Your task to perform on an android device: visit the assistant section in the google photos Image 0: 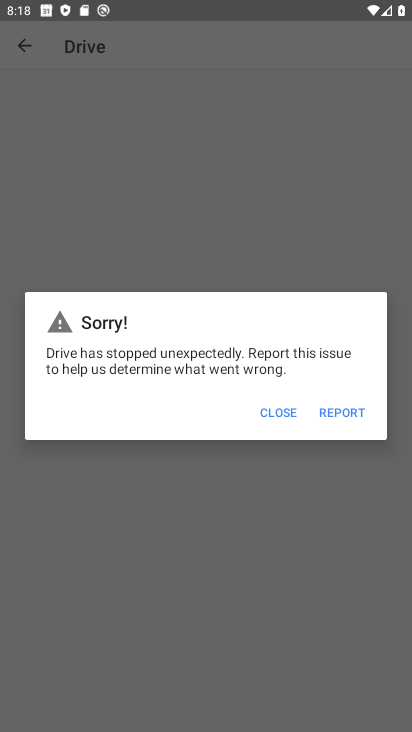
Step 0: press home button
Your task to perform on an android device: visit the assistant section in the google photos Image 1: 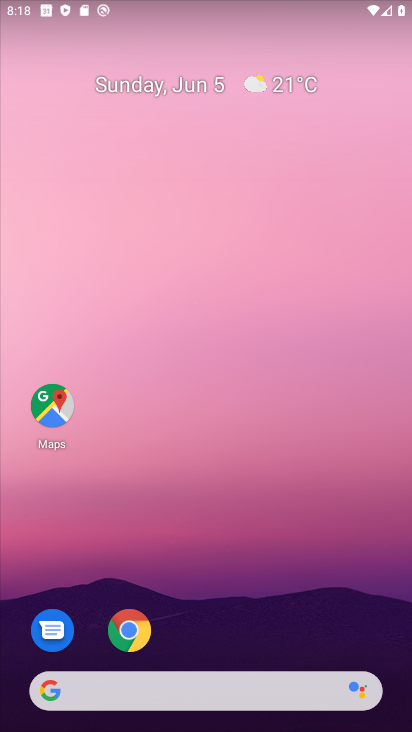
Step 1: drag from (221, 521) to (244, 263)
Your task to perform on an android device: visit the assistant section in the google photos Image 2: 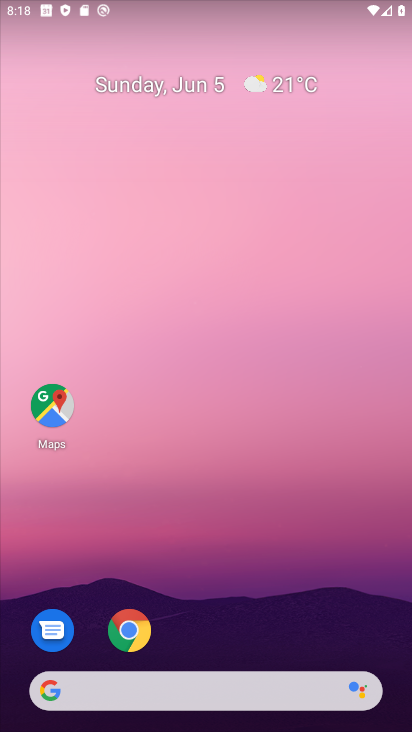
Step 2: drag from (251, 522) to (275, 265)
Your task to perform on an android device: visit the assistant section in the google photos Image 3: 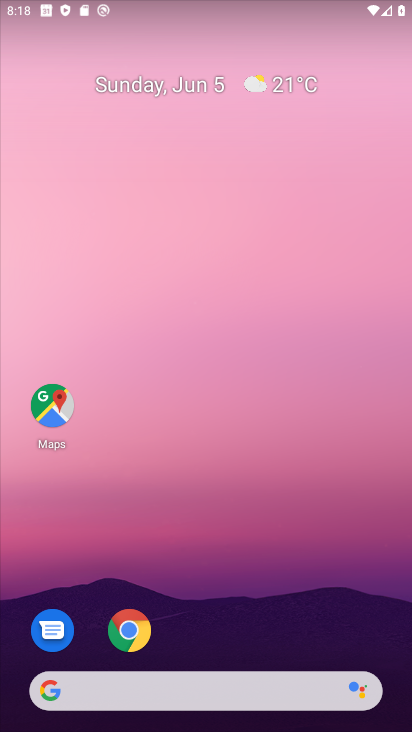
Step 3: drag from (208, 587) to (237, 203)
Your task to perform on an android device: visit the assistant section in the google photos Image 4: 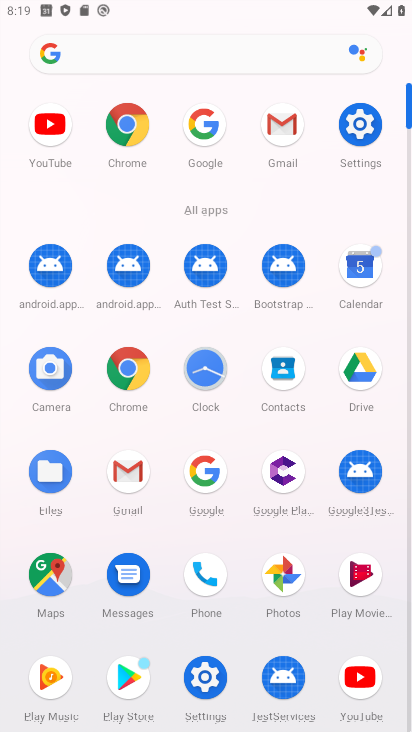
Step 4: click (288, 566)
Your task to perform on an android device: visit the assistant section in the google photos Image 5: 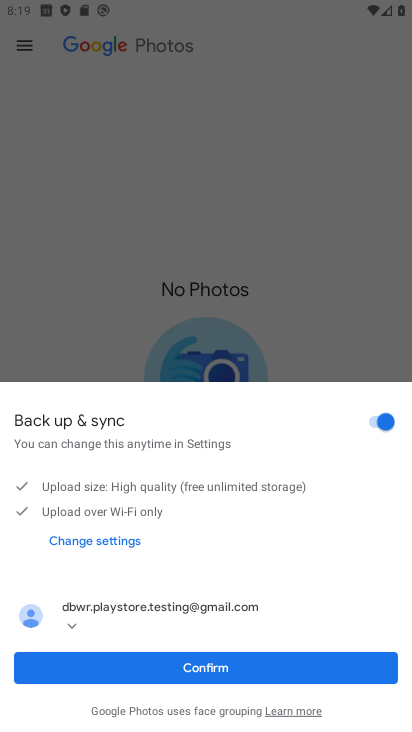
Step 5: click (259, 666)
Your task to perform on an android device: visit the assistant section in the google photos Image 6: 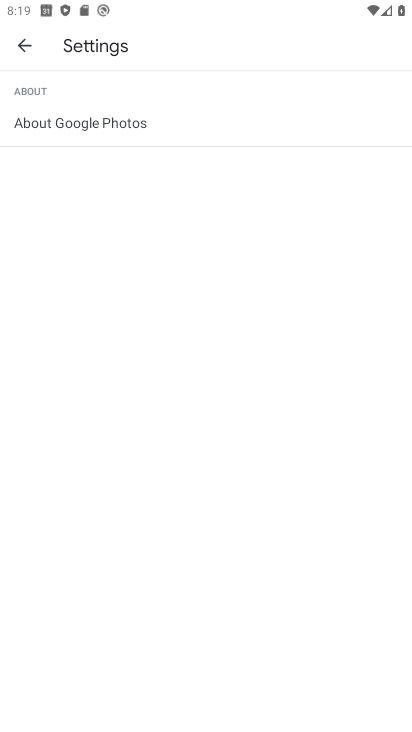
Step 6: click (26, 44)
Your task to perform on an android device: visit the assistant section in the google photos Image 7: 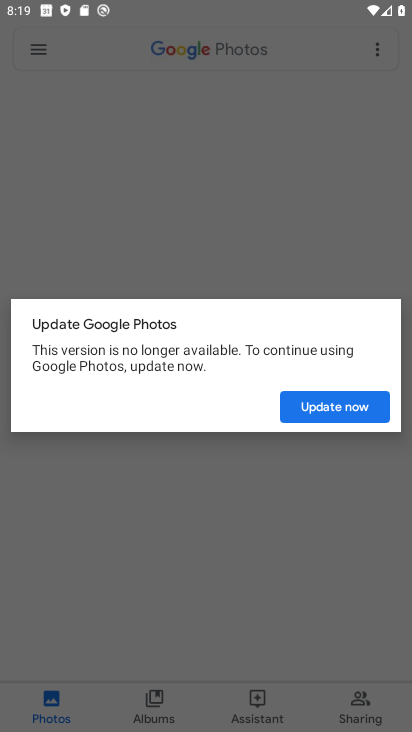
Step 7: click (309, 408)
Your task to perform on an android device: visit the assistant section in the google photos Image 8: 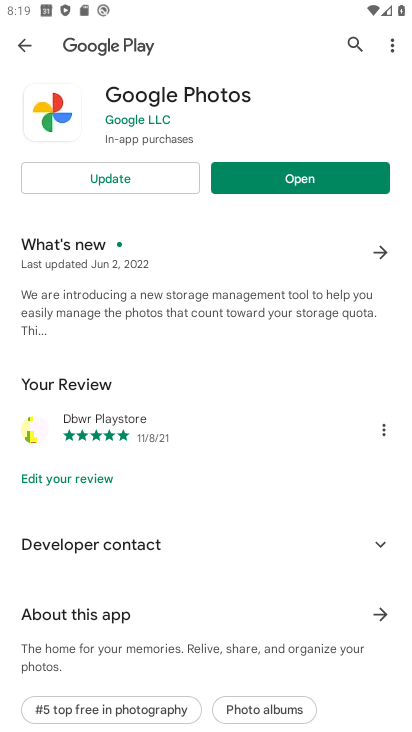
Step 8: click (150, 185)
Your task to perform on an android device: visit the assistant section in the google photos Image 9: 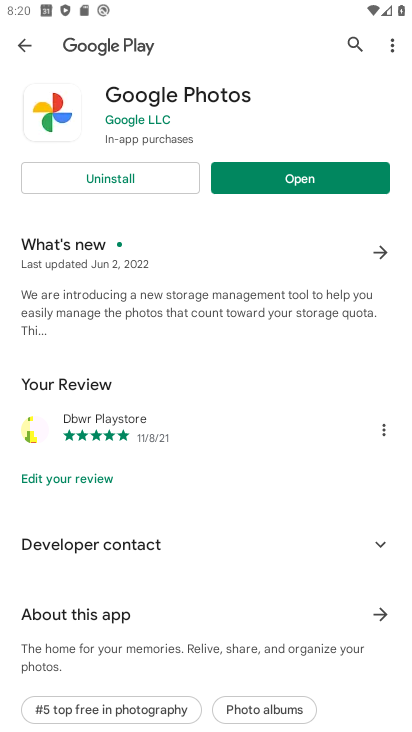
Step 9: click (301, 182)
Your task to perform on an android device: visit the assistant section in the google photos Image 10: 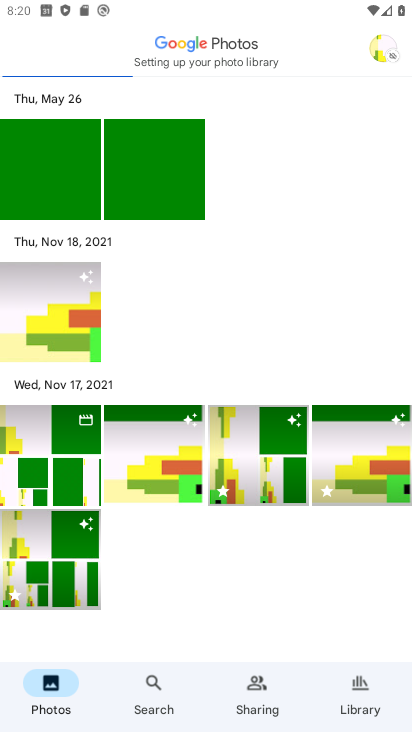
Step 10: click (156, 701)
Your task to perform on an android device: visit the assistant section in the google photos Image 11: 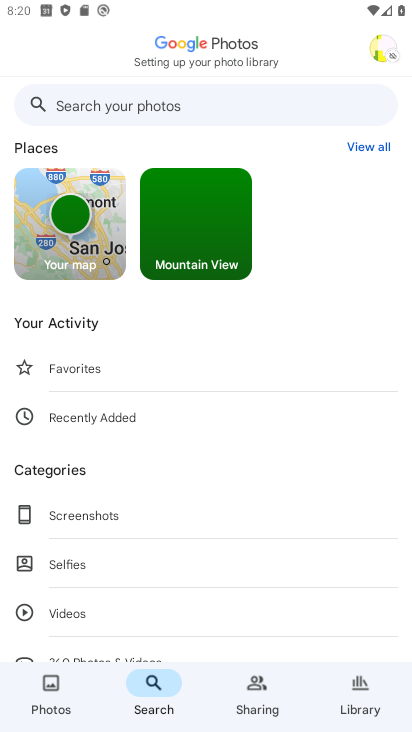
Step 11: type "assistant"
Your task to perform on an android device: visit the assistant section in the google photos Image 12: 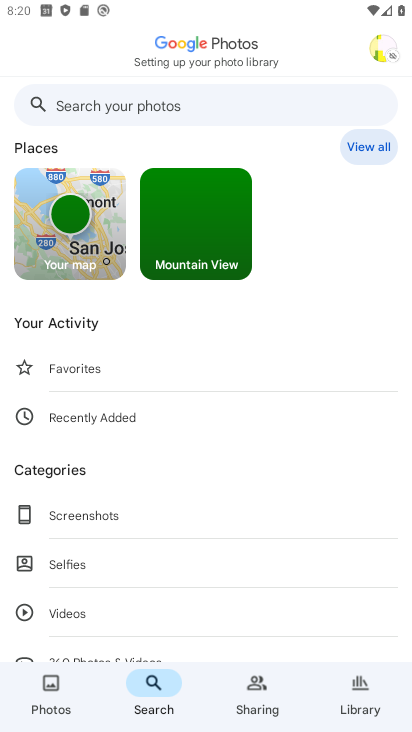
Step 12: task complete